Your task to perform on an android device: Open the phone app and click the voicemail tab. Image 0: 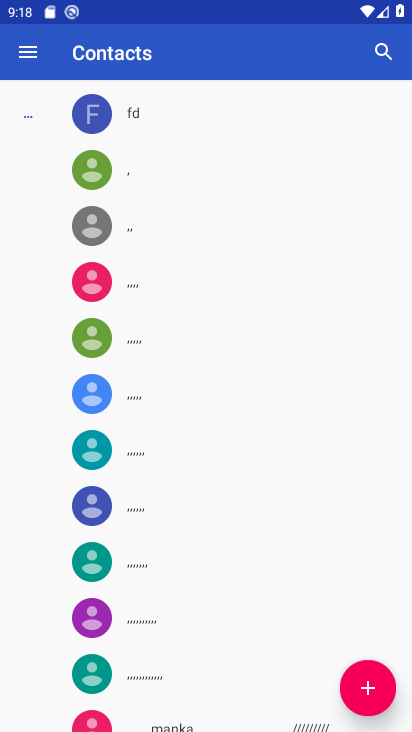
Step 0: press home button
Your task to perform on an android device: Open the phone app and click the voicemail tab. Image 1: 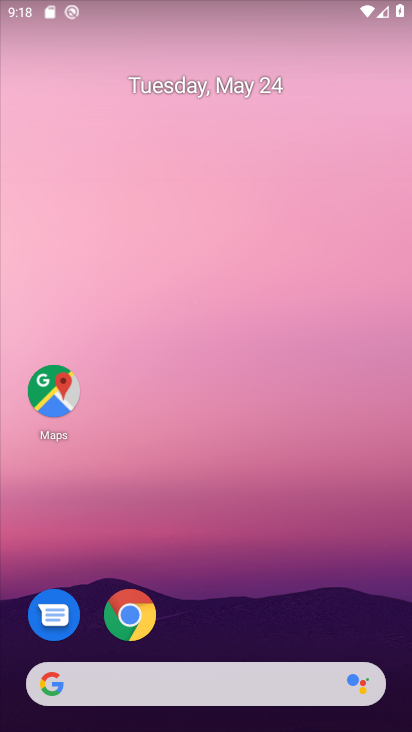
Step 1: drag from (365, 625) to (340, 280)
Your task to perform on an android device: Open the phone app and click the voicemail tab. Image 2: 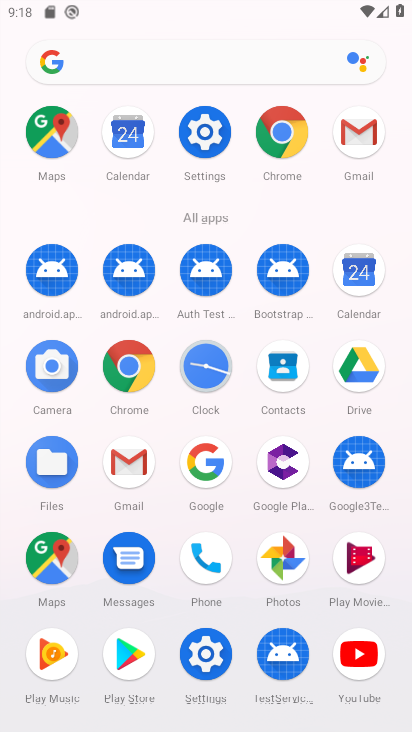
Step 2: click (356, 567)
Your task to perform on an android device: Open the phone app and click the voicemail tab. Image 3: 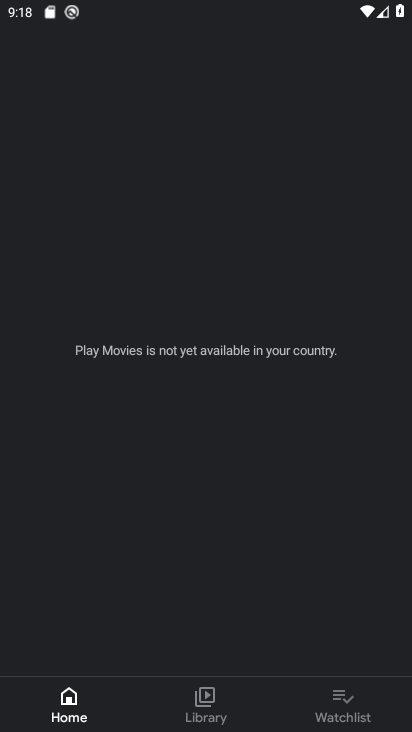
Step 3: click (346, 700)
Your task to perform on an android device: Open the phone app and click the voicemail tab. Image 4: 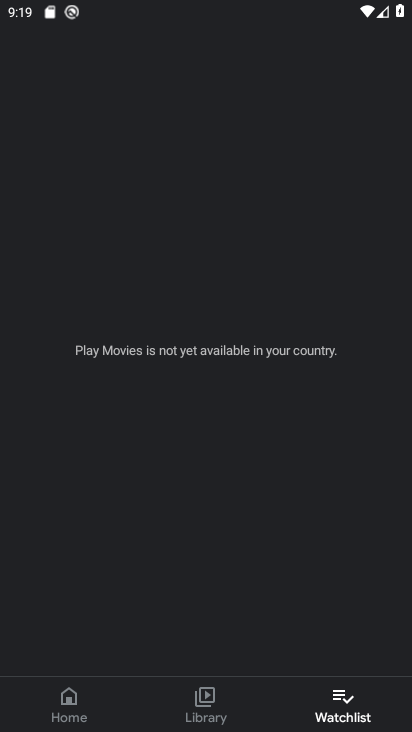
Step 4: task complete